Your task to perform on an android device: Open the calendar and show me this week's events? Image 0: 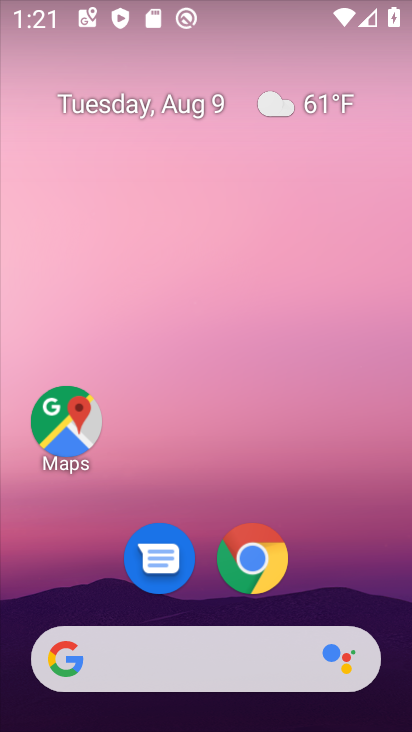
Step 0: drag from (352, 598) to (344, 160)
Your task to perform on an android device: Open the calendar and show me this week's events? Image 1: 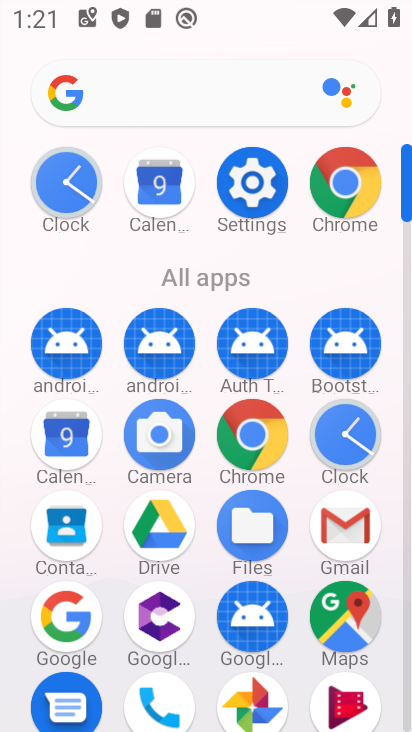
Step 1: click (81, 437)
Your task to perform on an android device: Open the calendar and show me this week's events? Image 2: 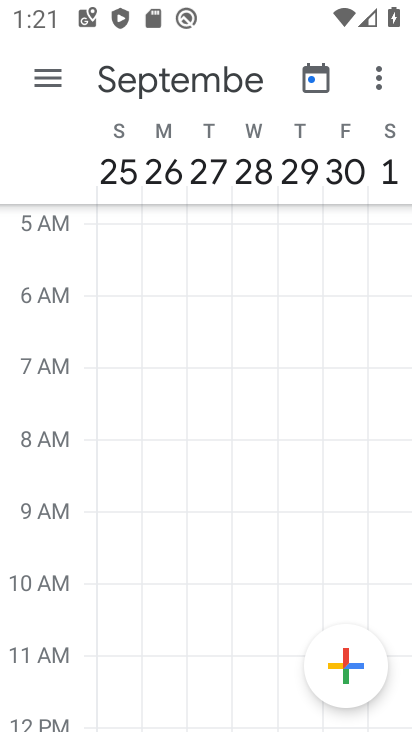
Step 2: click (227, 85)
Your task to perform on an android device: Open the calendar and show me this week's events? Image 3: 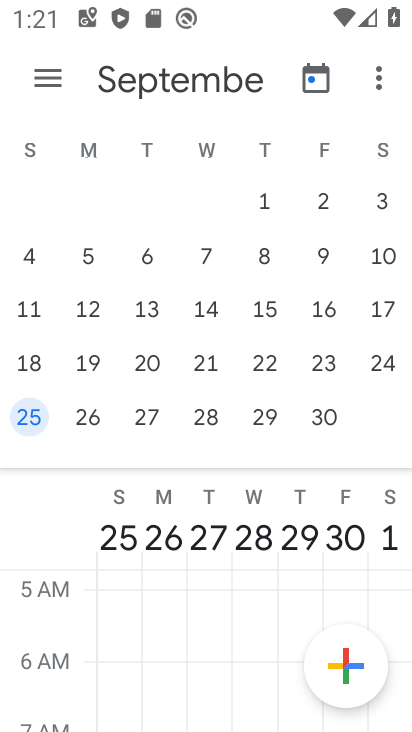
Step 3: drag from (87, 300) to (377, 263)
Your task to perform on an android device: Open the calendar and show me this week's events? Image 4: 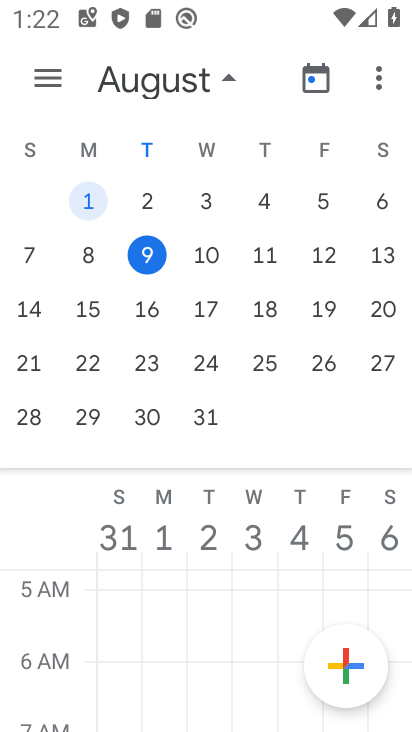
Step 4: click (148, 259)
Your task to perform on an android device: Open the calendar and show me this week's events? Image 5: 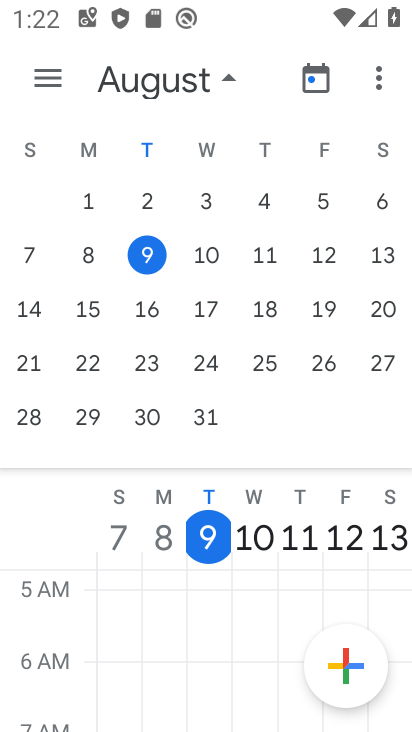
Step 5: click (58, 95)
Your task to perform on an android device: Open the calendar and show me this week's events? Image 6: 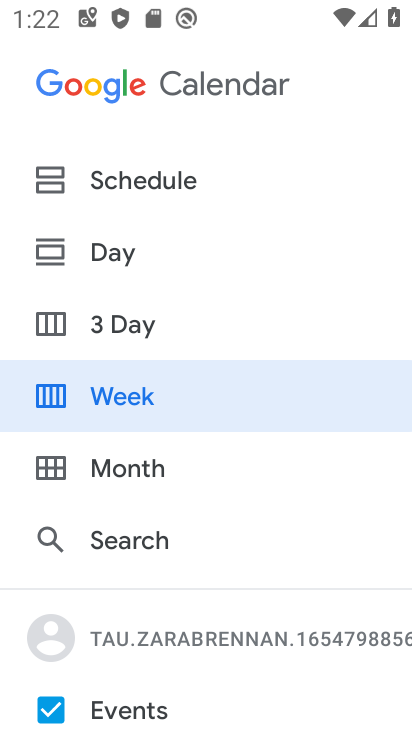
Step 6: click (154, 401)
Your task to perform on an android device: Open the calendar and show me this week's events? Image 7: 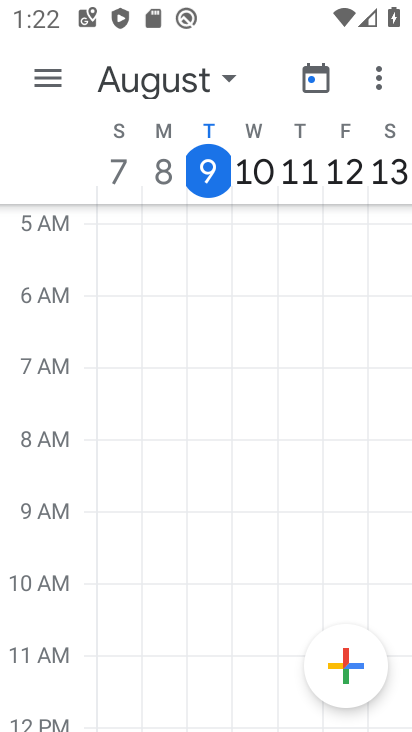
Step 7: task complete